Your task to perform on an android device: turn on javascript in the chrome app Image 0: 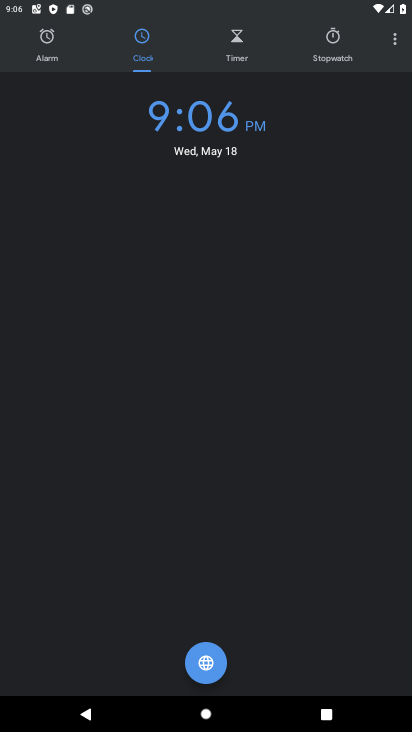
Step 0: click (136, 227)
Your task to perform on an android device: turn on javascript in the chrome app Image 1: 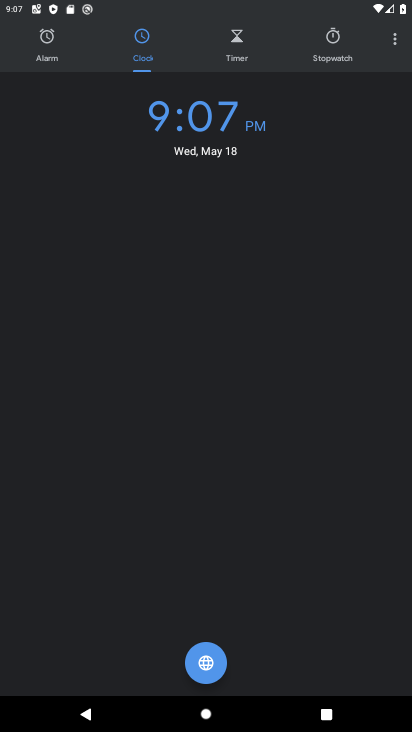
Step 1: press home button
Your task to perform on an android device: turn on javascript in the chrome app Image 2: 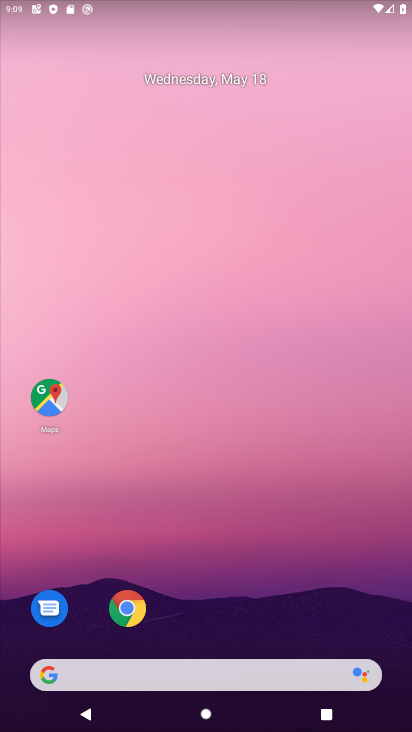
Step 2: click (184, 603)
Your task to perform on an android device: turn on javascript in the chrome app Image 3: 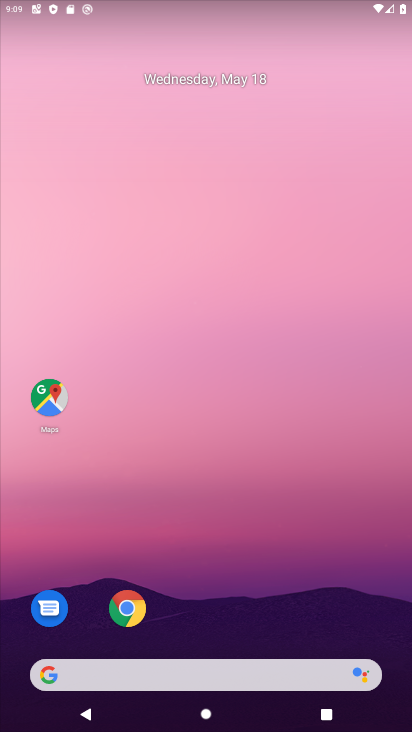
Step 3: click (134, 603)
Your task to perform on an android device: turn on javascript in the chrome app Image 4: 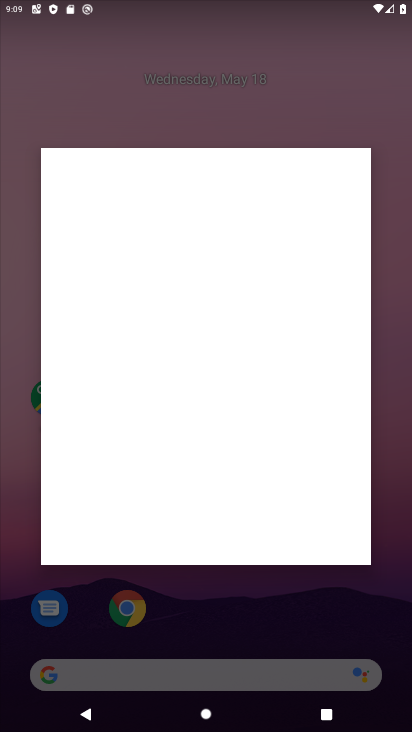
Step 4: click (344, 204)
Your task to perform on an android device: turn on javascript in the chrome app Image 5: 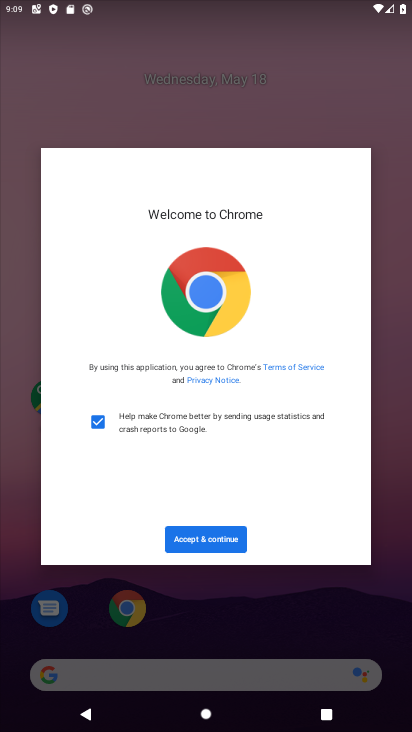
Step 5: click (207, 538)
Your task to perform on an android device: turn on javascript in the chrome app Image 6: 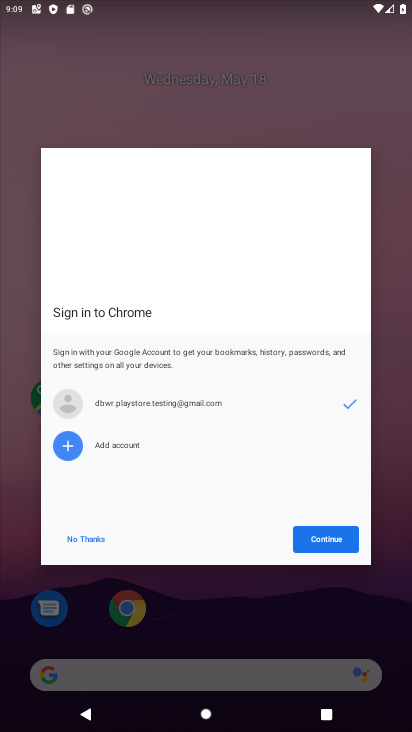
Step 6: click (89, 537)
Your task to perform on an android device: turn on javascript in the chrome app Image 7: 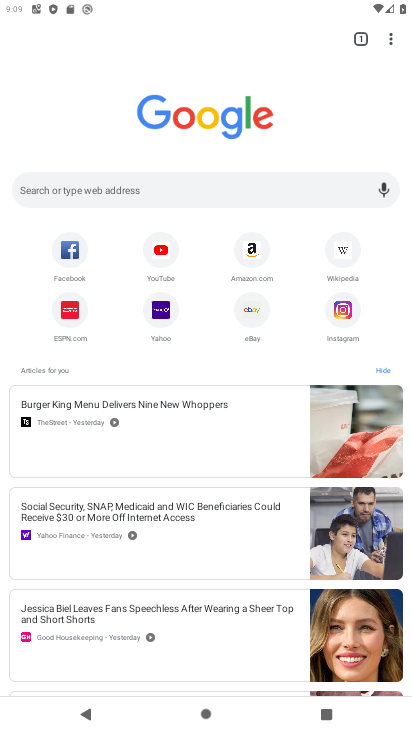
Step 7: click (394, 41)
Your task to perform on an android device: turn on javascript in the chrome app Image 8: 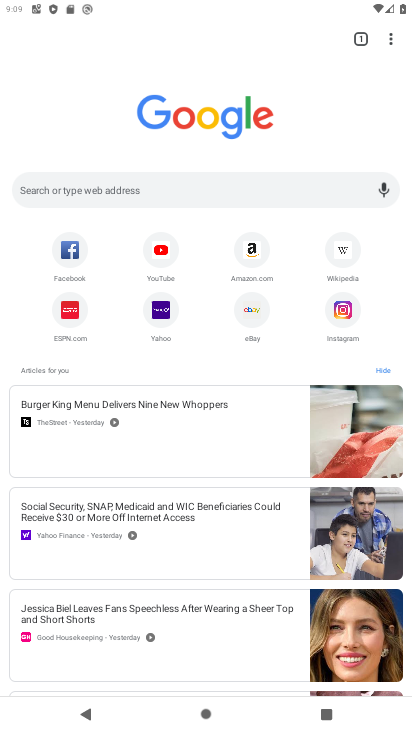
Step 8: click (393, 37)
Your task to perform on an android device: turn on javascript in the chrome app Image 9: 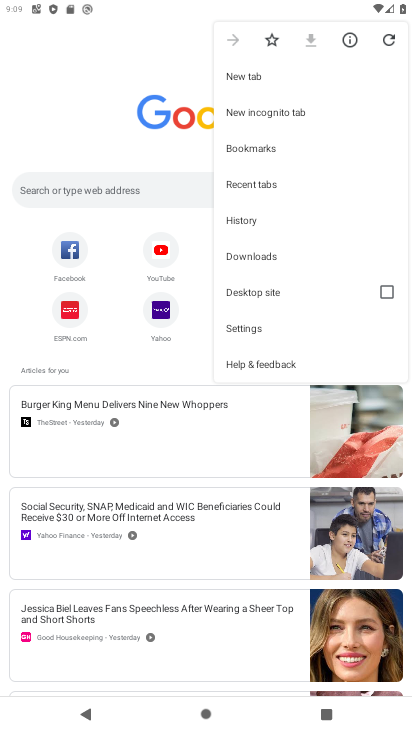
Step 9: click (250, 330)
Your task to perform on an android device: turn on javascript in the chrome app Image 10: 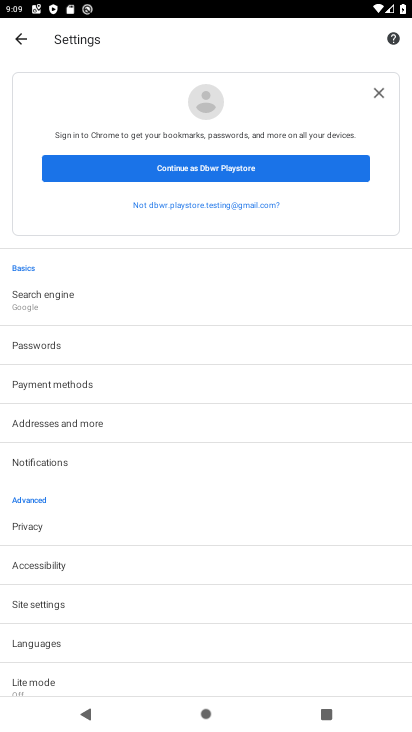
Step 10: click (46, 600)
Your task to perform on an android device: turn on javascript in the chrome app Image 11: 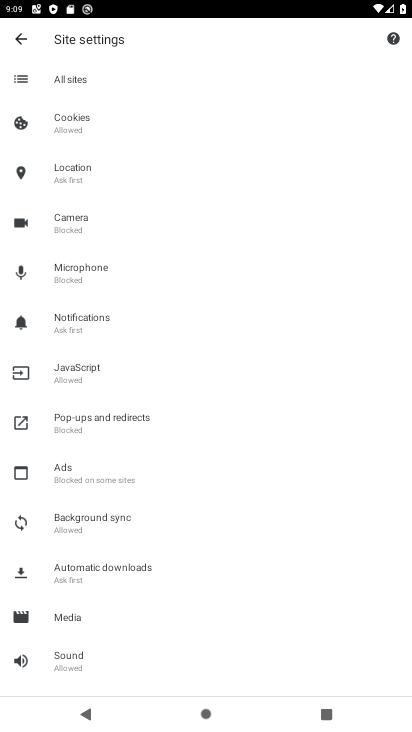
Step 11: click (81, 365)
Your task to perform on an android device: turn on javascript in the chrome app Image 12: 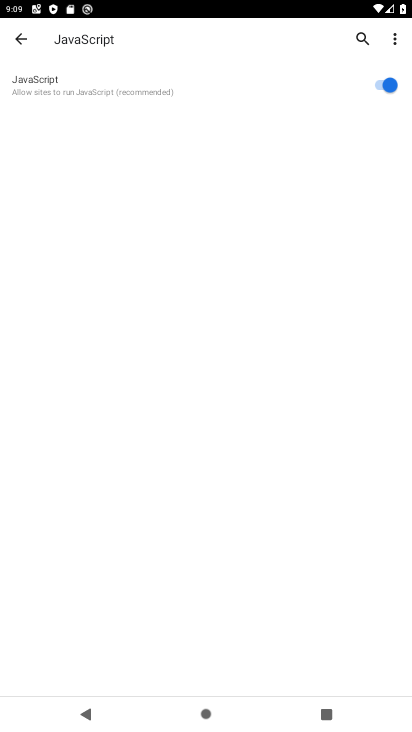
Step 12: task complete